Your task to perform on an android device: toggle sleep mode Image 0: 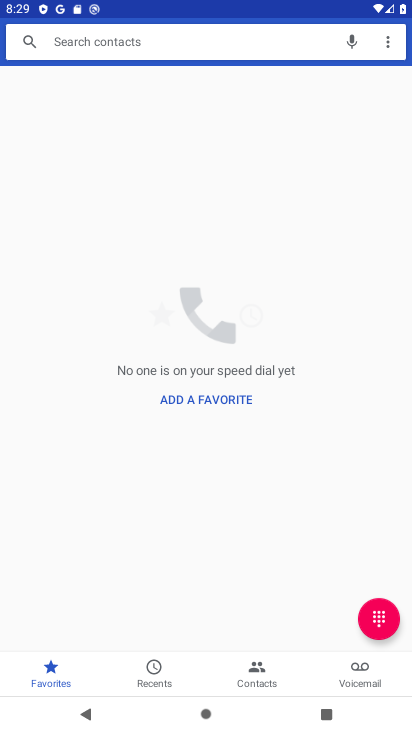
Step 0: task complete